Your task to perform on an android device: toggle data saver in the chrome app Image 0: 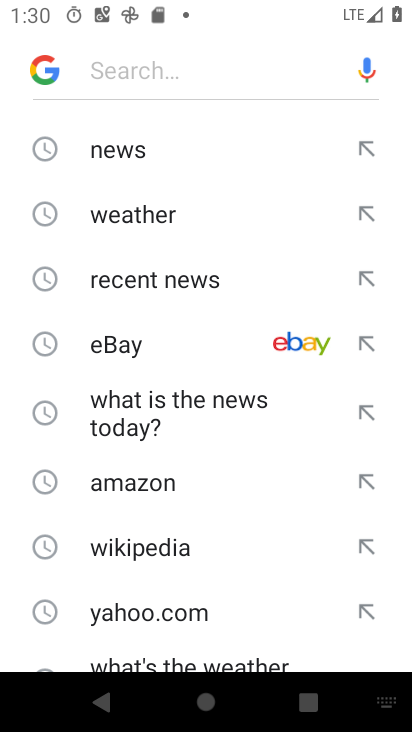
Step 0: press home button
Your task to perform on an android device: toggle data saver in the chrome app Image 1: 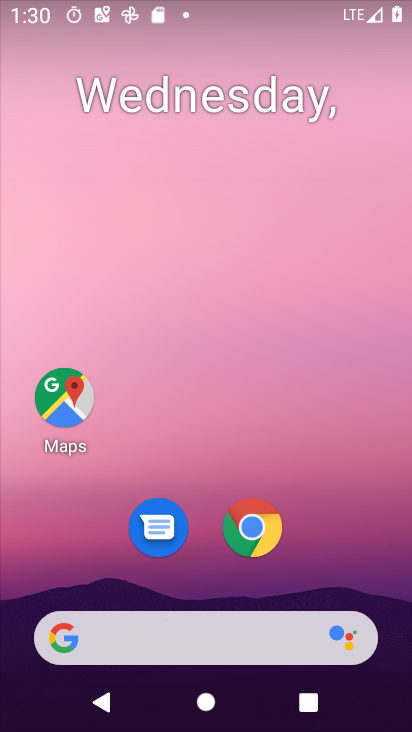
Step 1: drag from (178, 634) to (256, 107)
Your task to perform on an android device: toggle data saver in the chrome app Image 2: 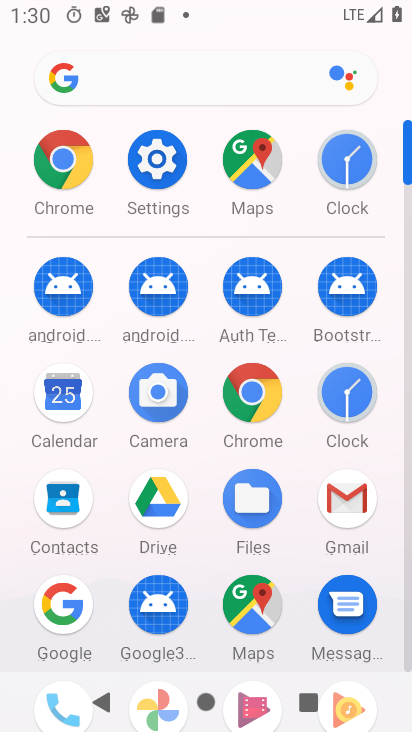
Step 2: click (268, 403)
Your task to perform on an android device: toggle data saver in the chrome app Image 3: 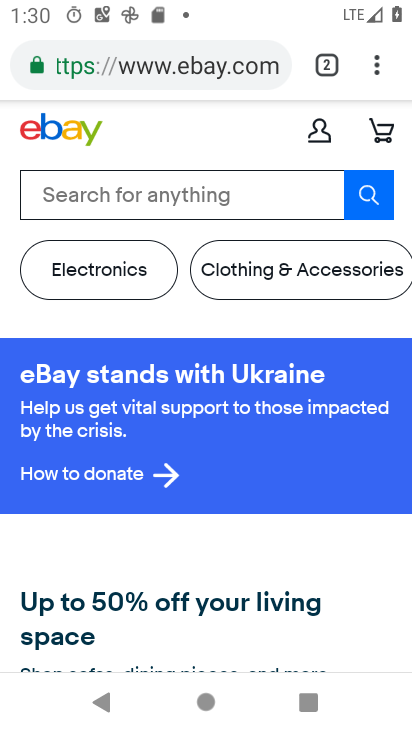
Step 3: drag from (380, 60) to (160, 582)
Your task to perform on an android device: toggle data saver in the chrome app Image 4: 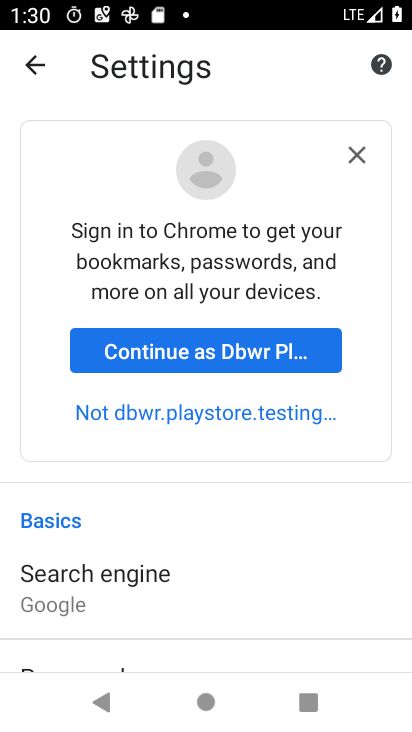
Step 4: drag from (128, 643) to (177, 226)
Your task to perform on an android device: toggle data saver in the chrome app Image 5: 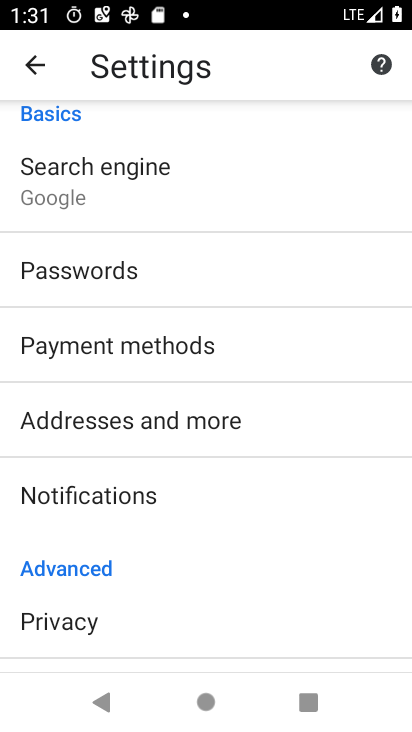
Step 5: drag from (169, 613) to (227, 250)
Your task to perform on an android device: toggle data saver in the chrome app Image 6: 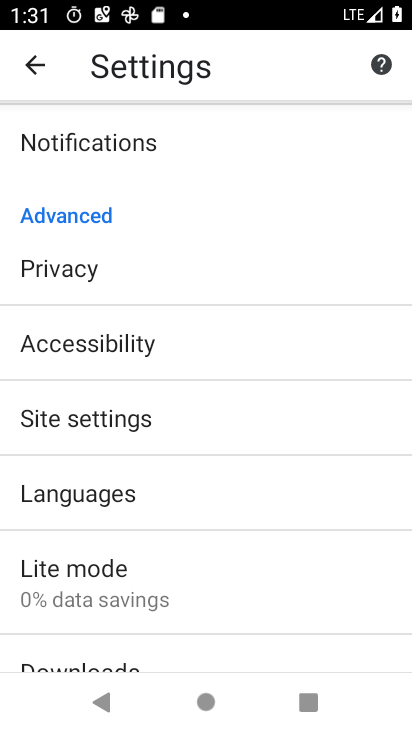
Step 6: click (131, 569)
Your task to perform on an android device: toggle data saver in the chrome app Image 7: 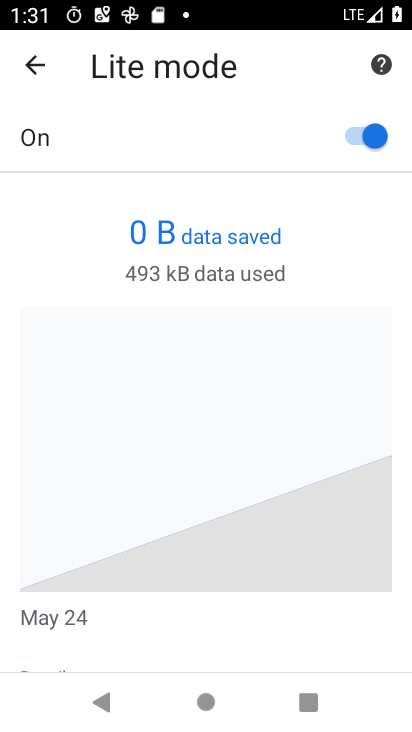
Step 7: click (365, 131)
Your task to perform on an android device: toggle data saver in the chrome app Image 8: 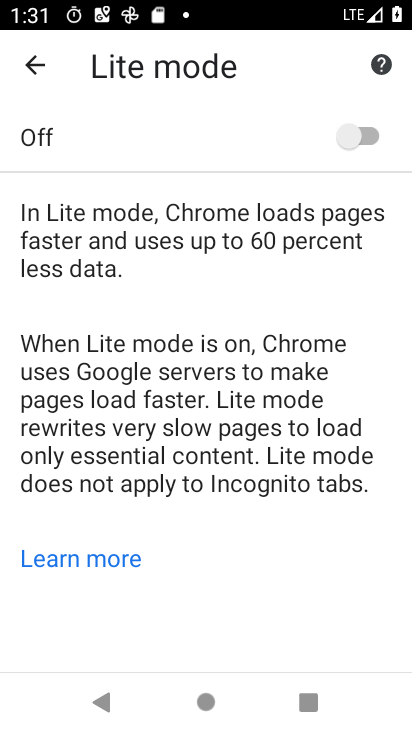
Step 8: task complete